Your task to perform on an android device: Open Chrome and go to settings Image 0: 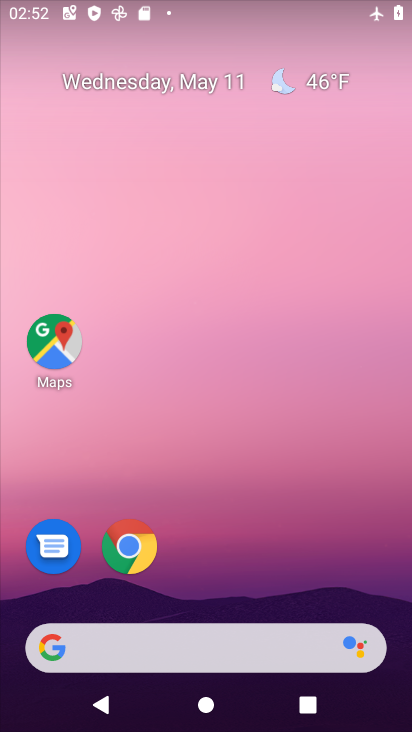
Step 0: drag from (199, 602) to (285, 125)
Your task to perform on an android device: Open Chrome and go to settings Image 1: 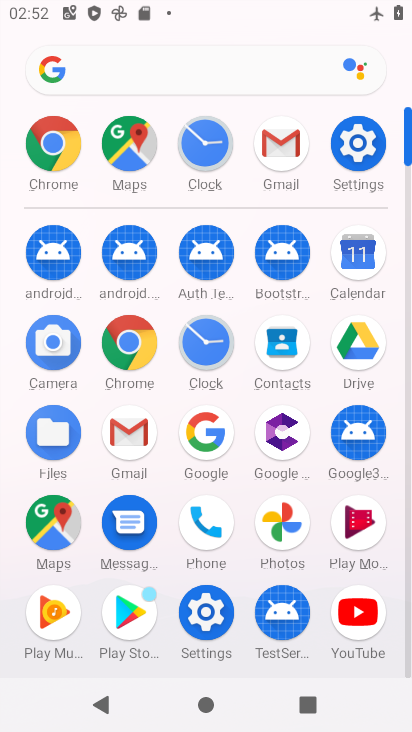
Step 1: click (210, 613)
Your task to perform on an android device: Open Chrome and go to settings Image 2: 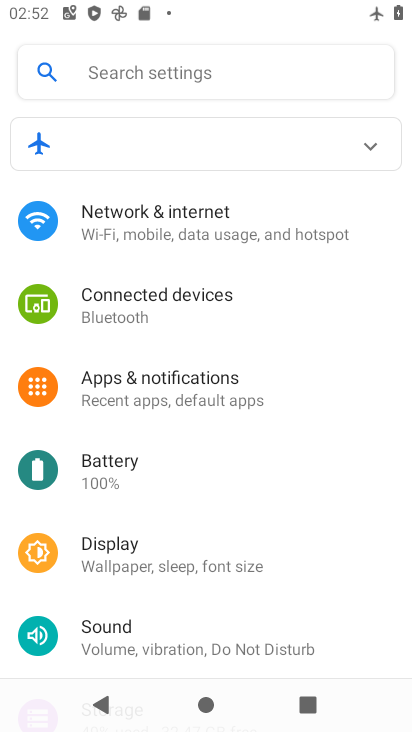
Step 2: press home button
Your task to perform on an android device: Open Chrome and go to settings Image 3: 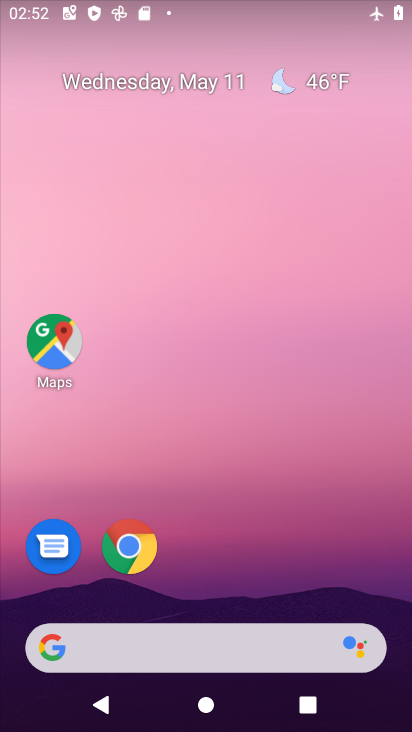
Step 3: drag from (244, 562) to (299, 176)
Your task to perform on an android device: Open Chrome and go to settings Image 4: 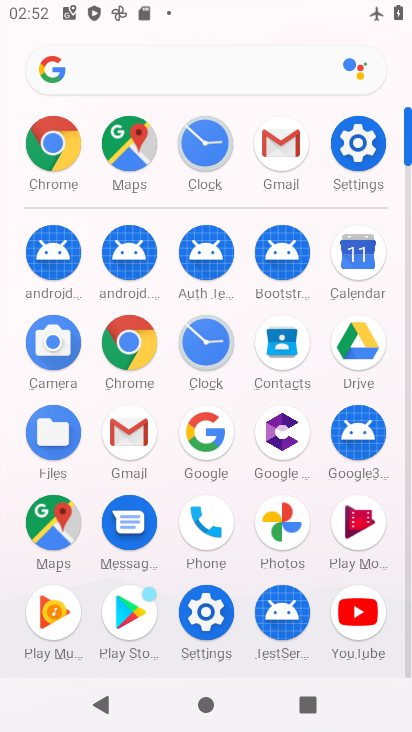
Step 4: click (126, 337)
Your task to perform on an android device: Open Chrome and go to settings Image 5: 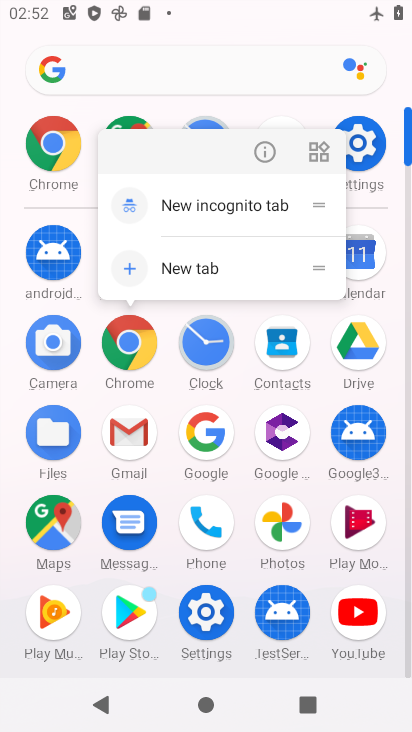
Step 5: click (266, 157)
Your task to perform on an android device: Open Chrome and go to settings Image 6: 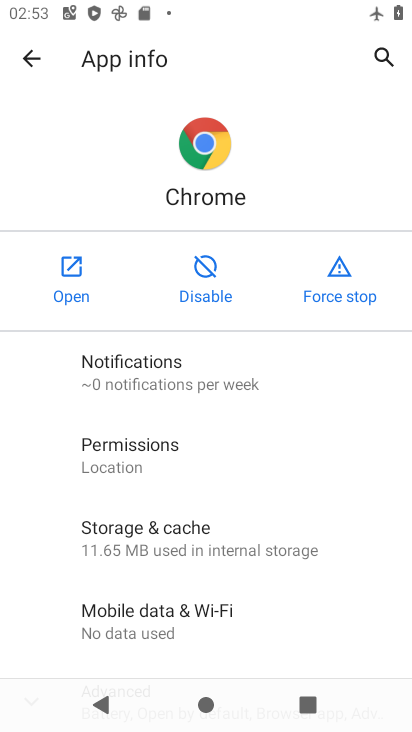
Step 6: click (74, 285)
Your task to perform on an android device: Open Chrome and go to settings Image 7: 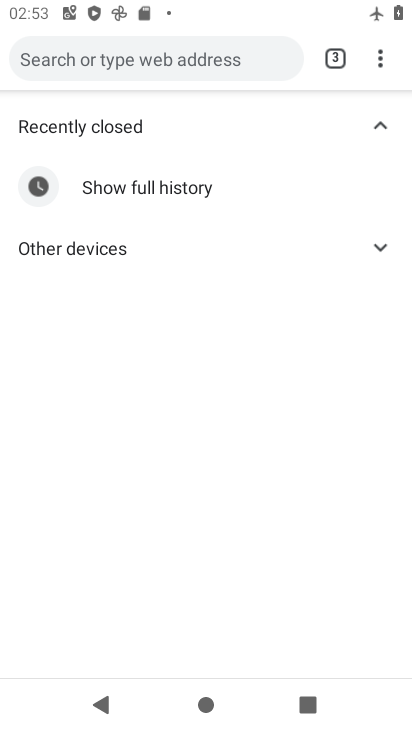
Step 7: task complete